Your task to perform on an android device: Show me popular games on the Play Store Image 0: 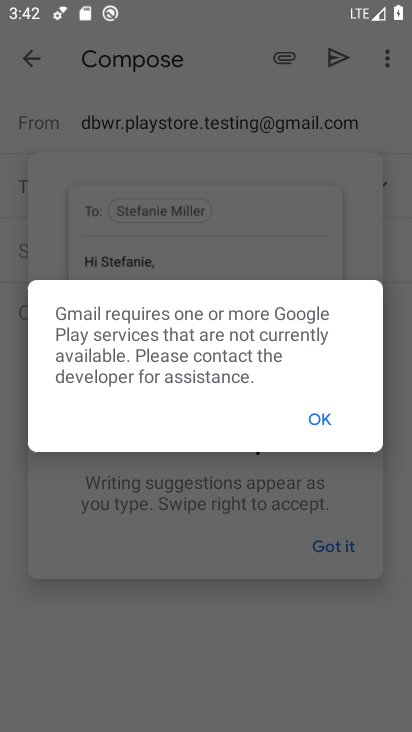
Step 0: press home button
Your task to perform on an android device: Show me popular games on the Play Store Image 1: 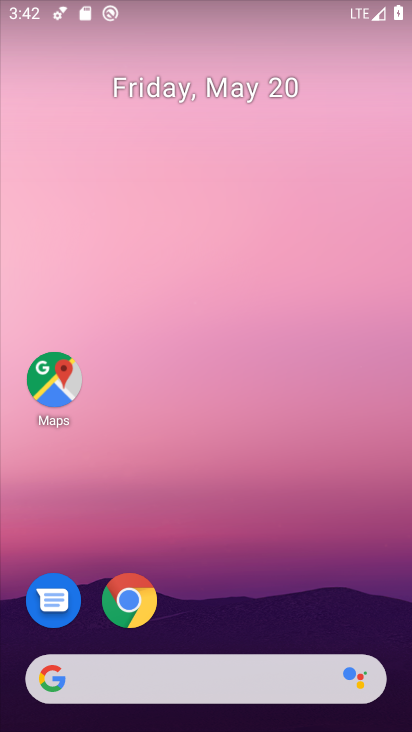
Step 1: drag from (360, 611) to (339, 216)
Your task to perform on an android device: Show me popular games on the Play Store Image 2: 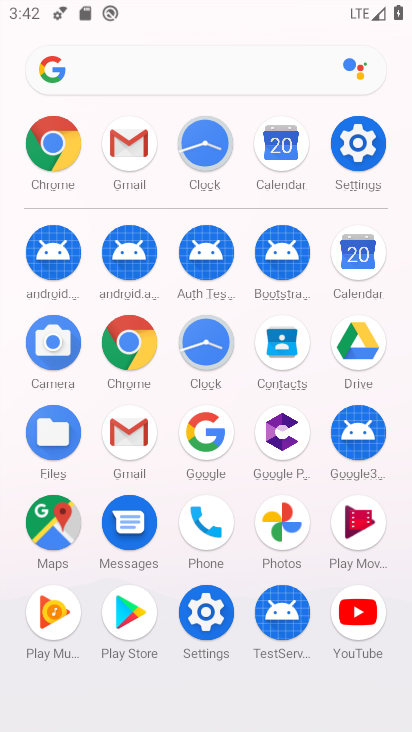
Step 2: drag from (319, 311) to (308, 77)
Your task to perform on an android device: Show me popular games on the Play Store Image 3: 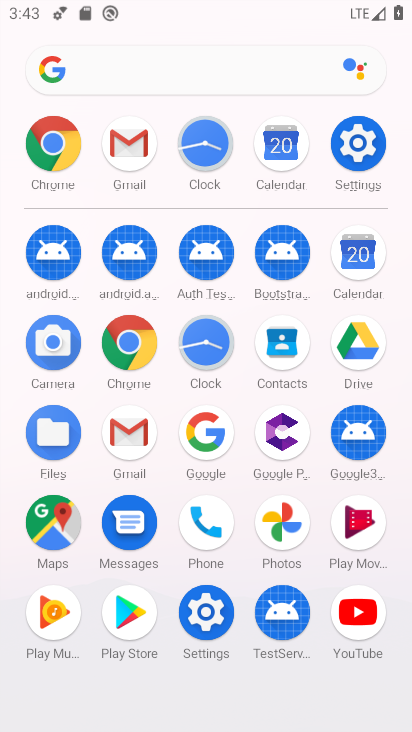
Step 3: click (144, 623)
Your task to perform on an android device: Show me popular games on the Play Store Image 4: 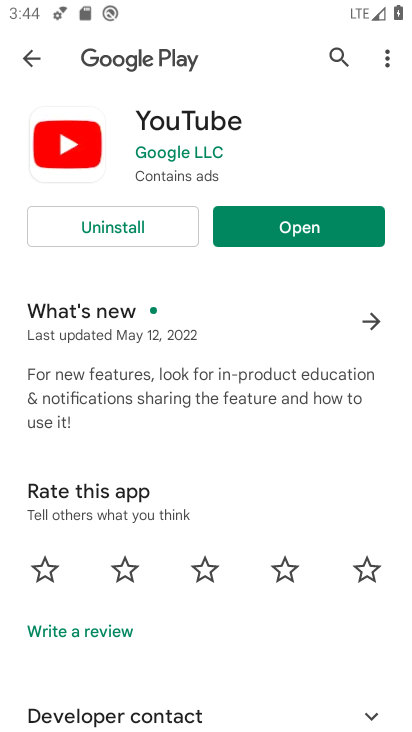
Step 4: click (29, 67)
Your task to perform on an android device: Show me popular games on the Play Store Image 5: 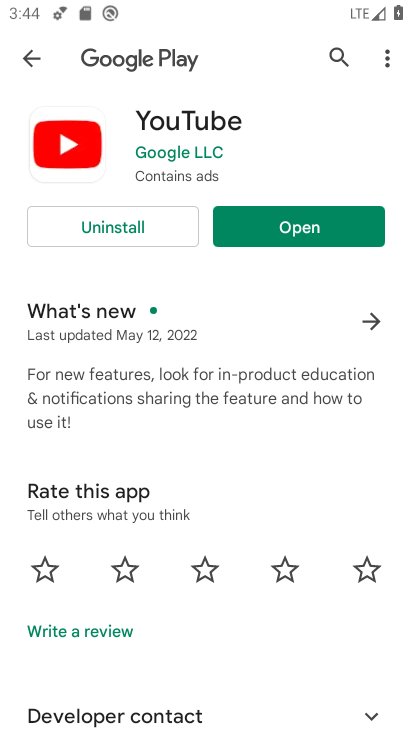
Step 5: click (29, 63)
Your task to perform on an android device: Show me popular games on the Play Store Image 6: 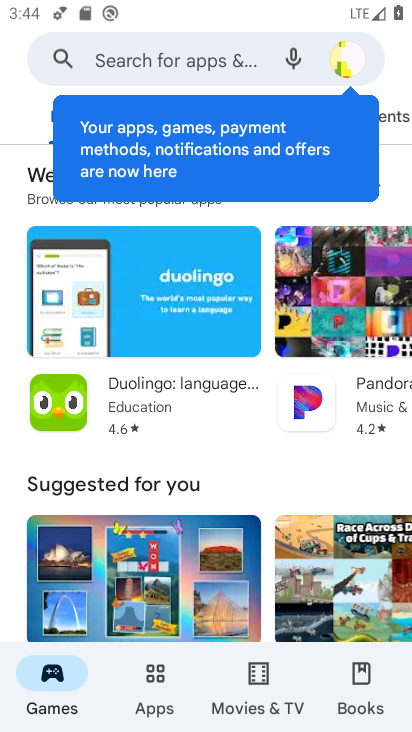
Step 6: task complete